Your task to perform on an android device: Search for vegetarian restaurants on Maps Image 0: 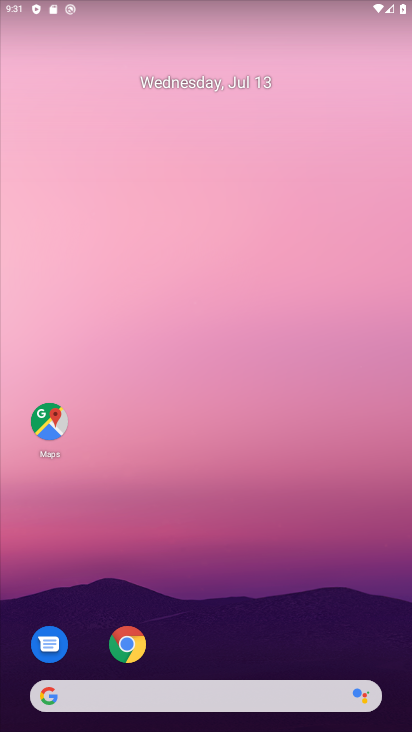
Step 0: drag from (205, 663) to (251, 149)
Your task to perform on an android device: Search for vegetarian restaurants on Maps Image 1: 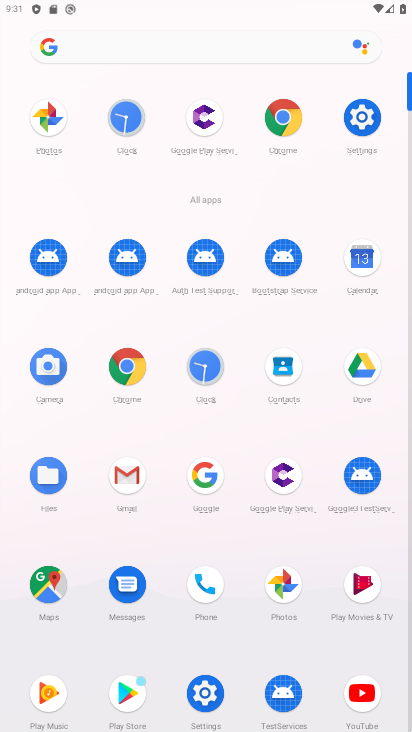
Step 1: click (48, 596)
Your task to perform on an android device: Search for vegetarian restaurants on Maps Image 2: 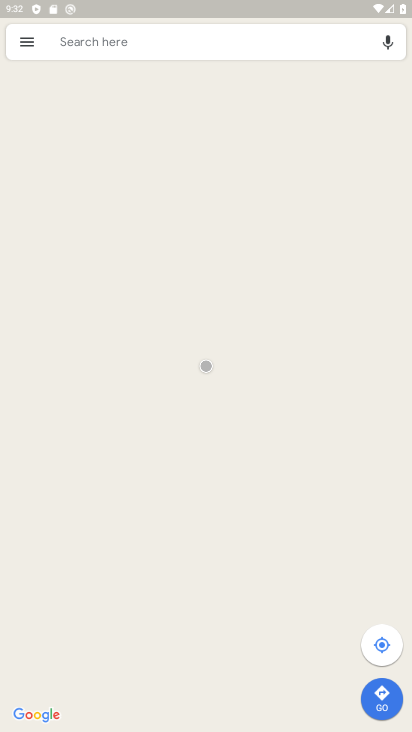
Step 2: click (216, 42)
Your task to perform on an android device: Search for vegetarian restaurants on Maps Image 3: 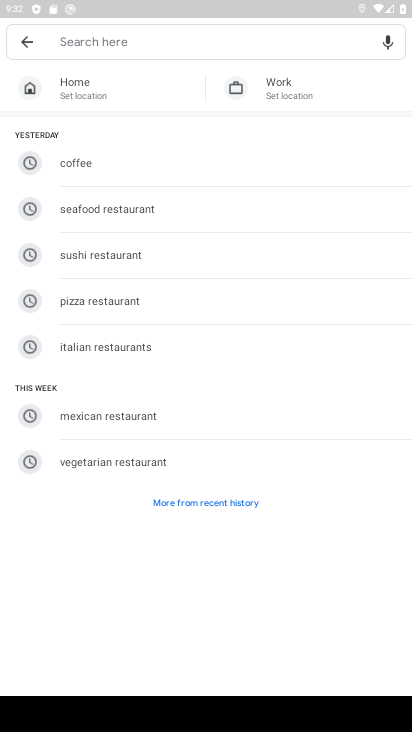
Step 3: type "vegetarian restaurants"
Your task to perform on an android device: Search for vegetarian restaurants on Maps Image 4: 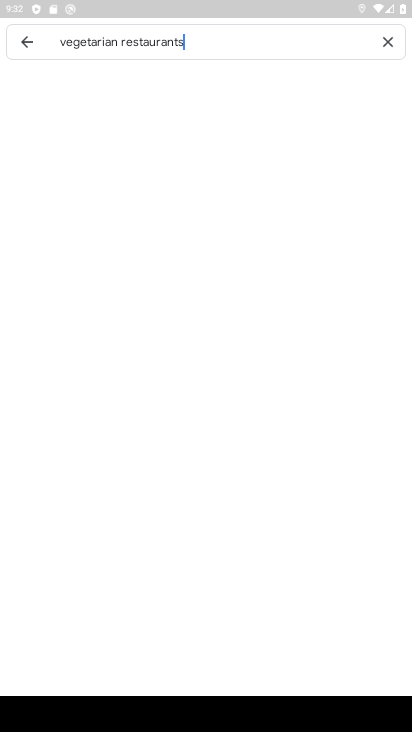
Step 4: press enter
Your task to perform on an android device: Search for vegetarian restaurants on Maps Image 5: 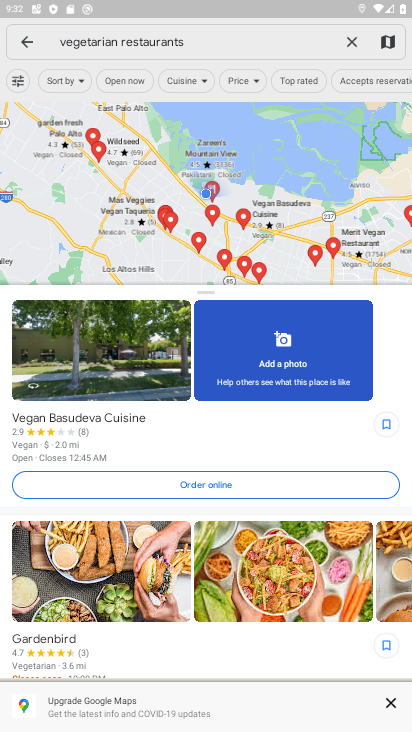
Step 5: task complete